Your task to perform on an android device: set default search engine in the chrome app Image 0: 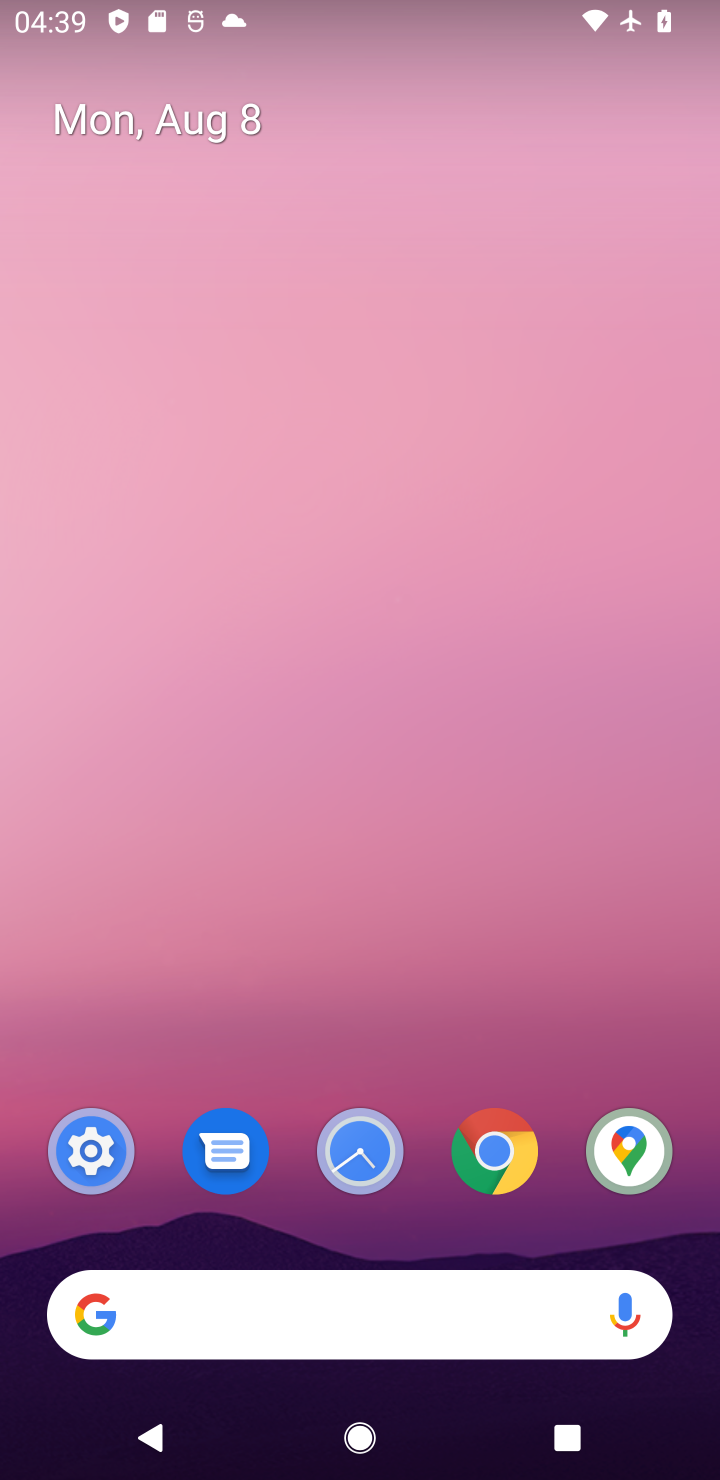
Step 0: click (495, 1129)
Your task to perform on an android device: set default search engine in the chrome app Image 1: 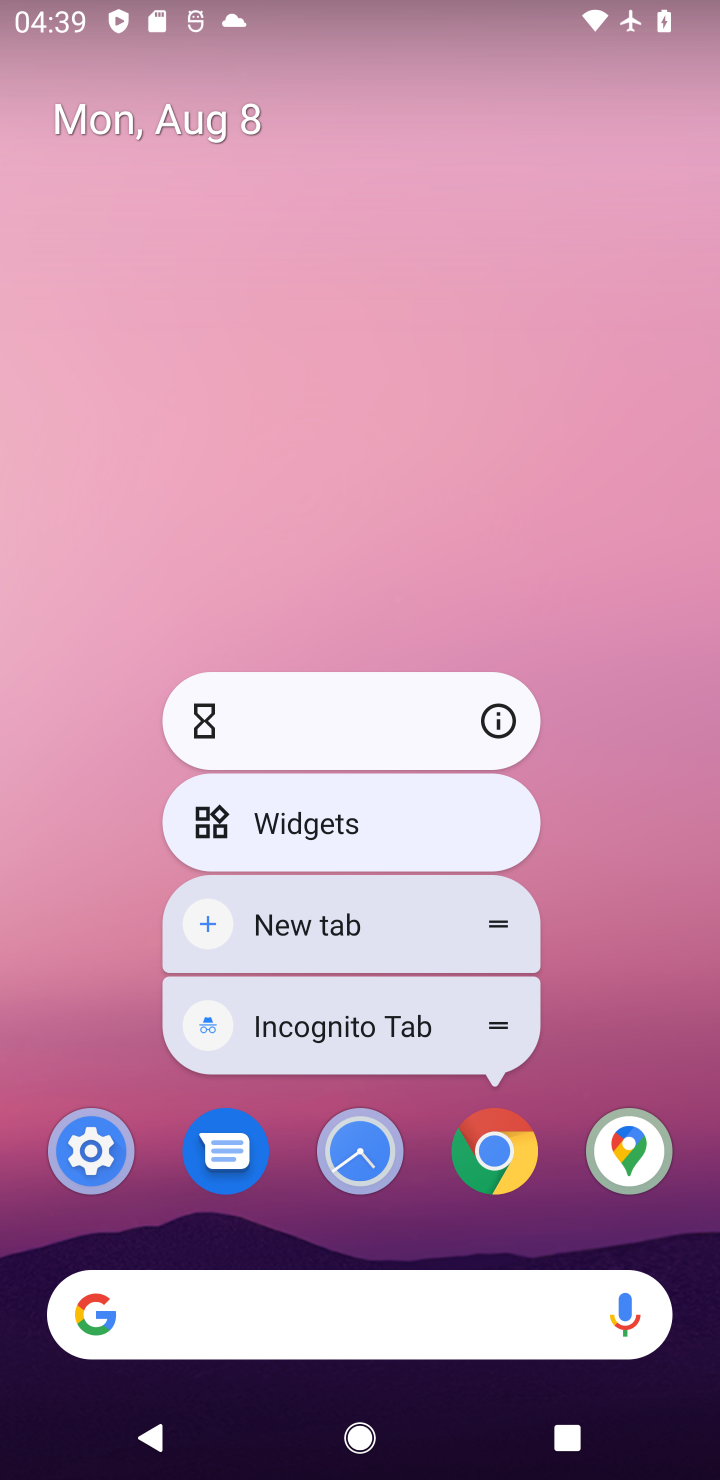
Step 1: click (495, 1129)
Your task to perform on an android device: set default search engine in the chrome app Image 2: 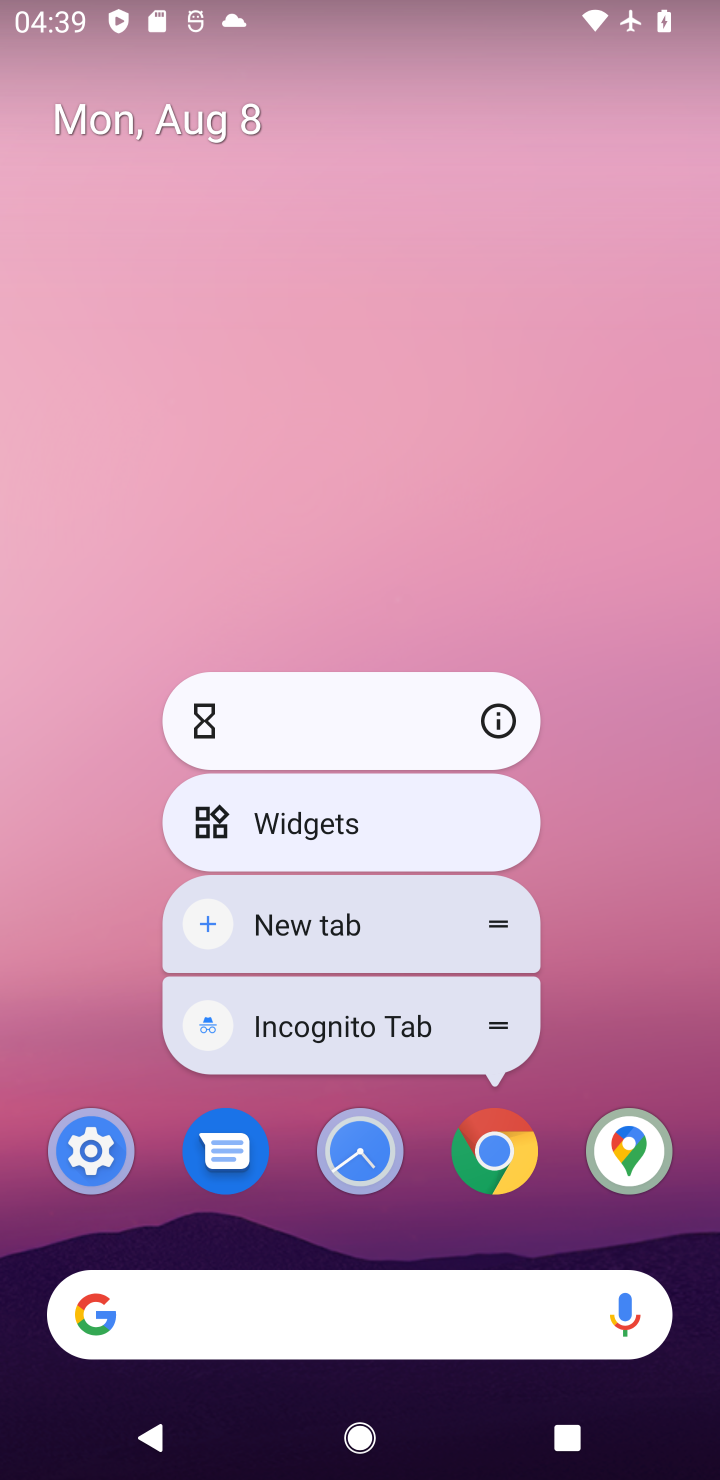
Step 2: click (495, 1129)
Your task to perform on an android device: set default search engine in the chrome app Image 3: 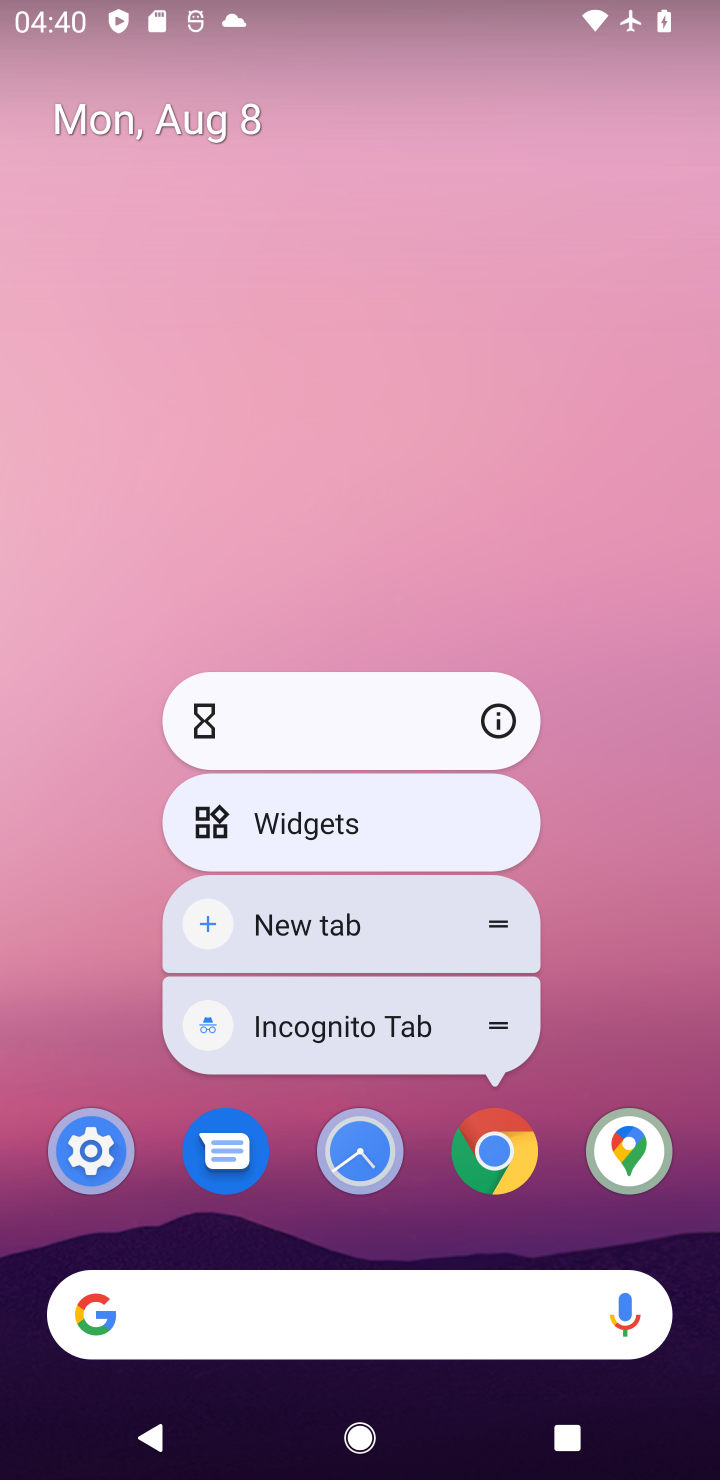
Step 3: click (495, 1129)
Your task to perform on an android device: set default search engine in the chrome app Image 4: 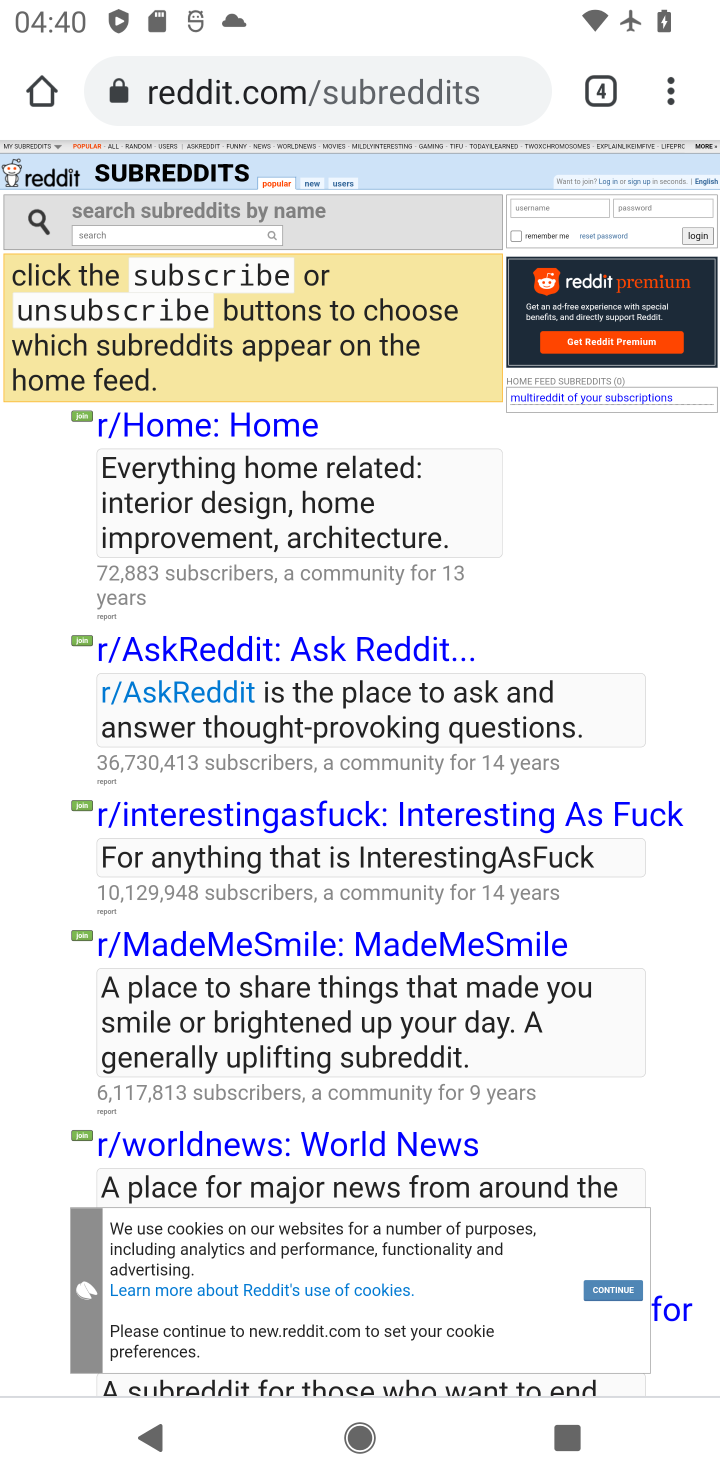
Step 4: click (667, 101)
Your task to perform on an android device: set default search engine in the chrome app Image 5: 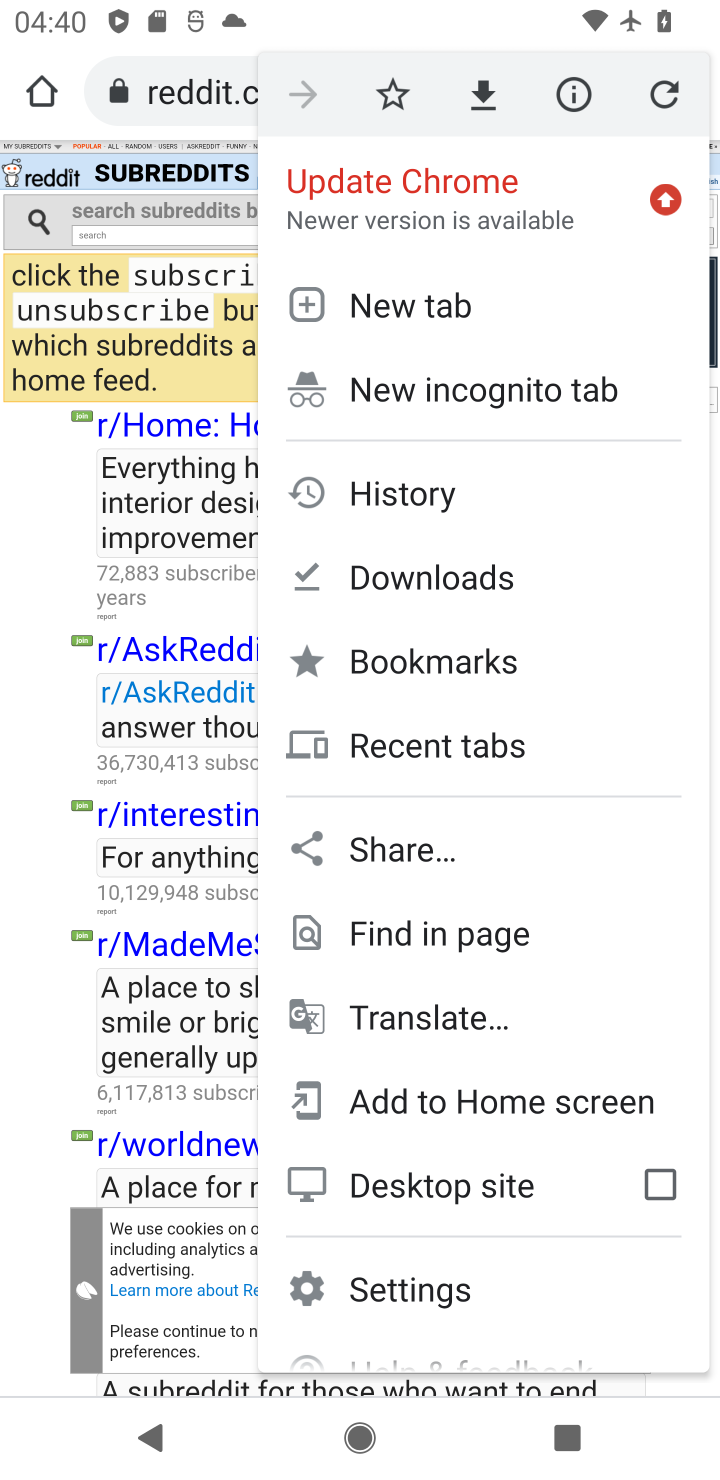
Step 5: click (411, 1281)
Your task to perform on an android device: set default search engine in the chrome app Image 6: 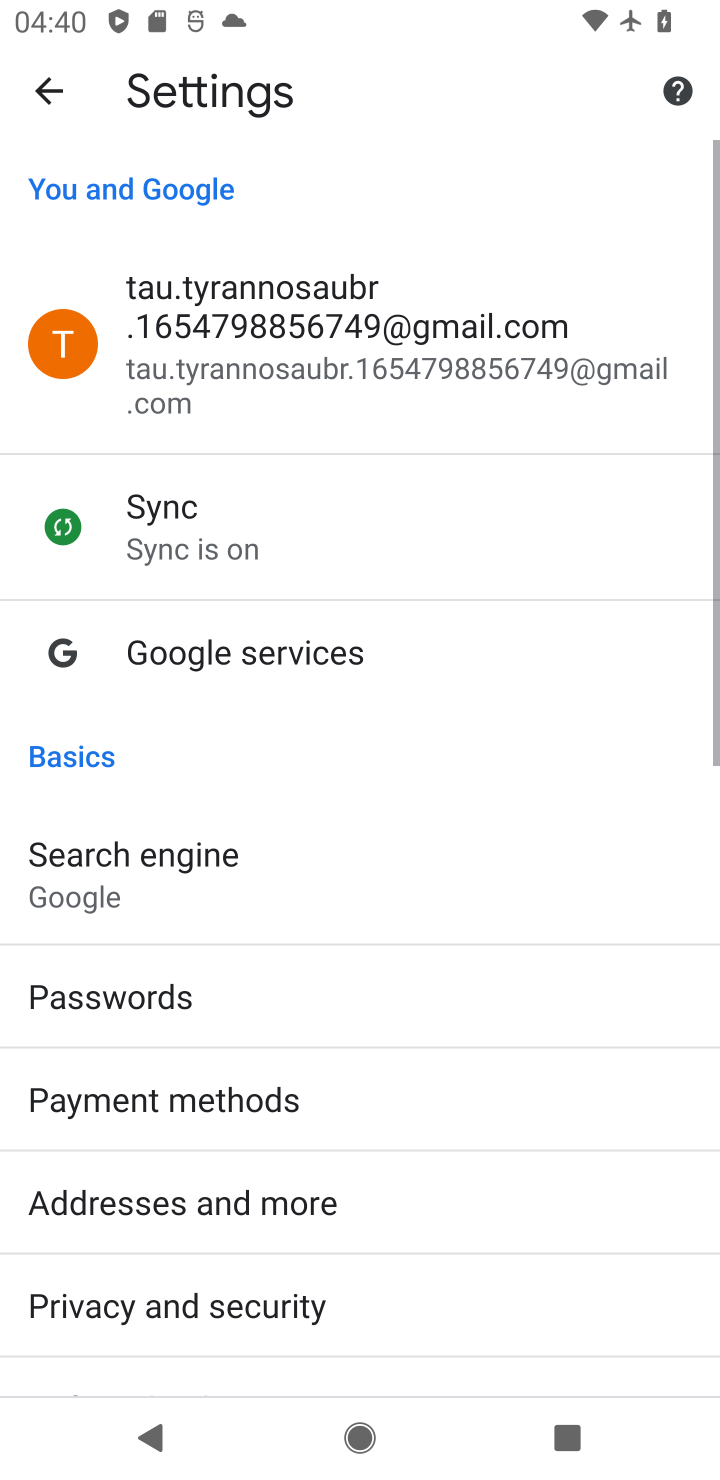
Step 6: click (341, 853)
Your task to perform on an android device: set default search engine in the chrome app Image 7: 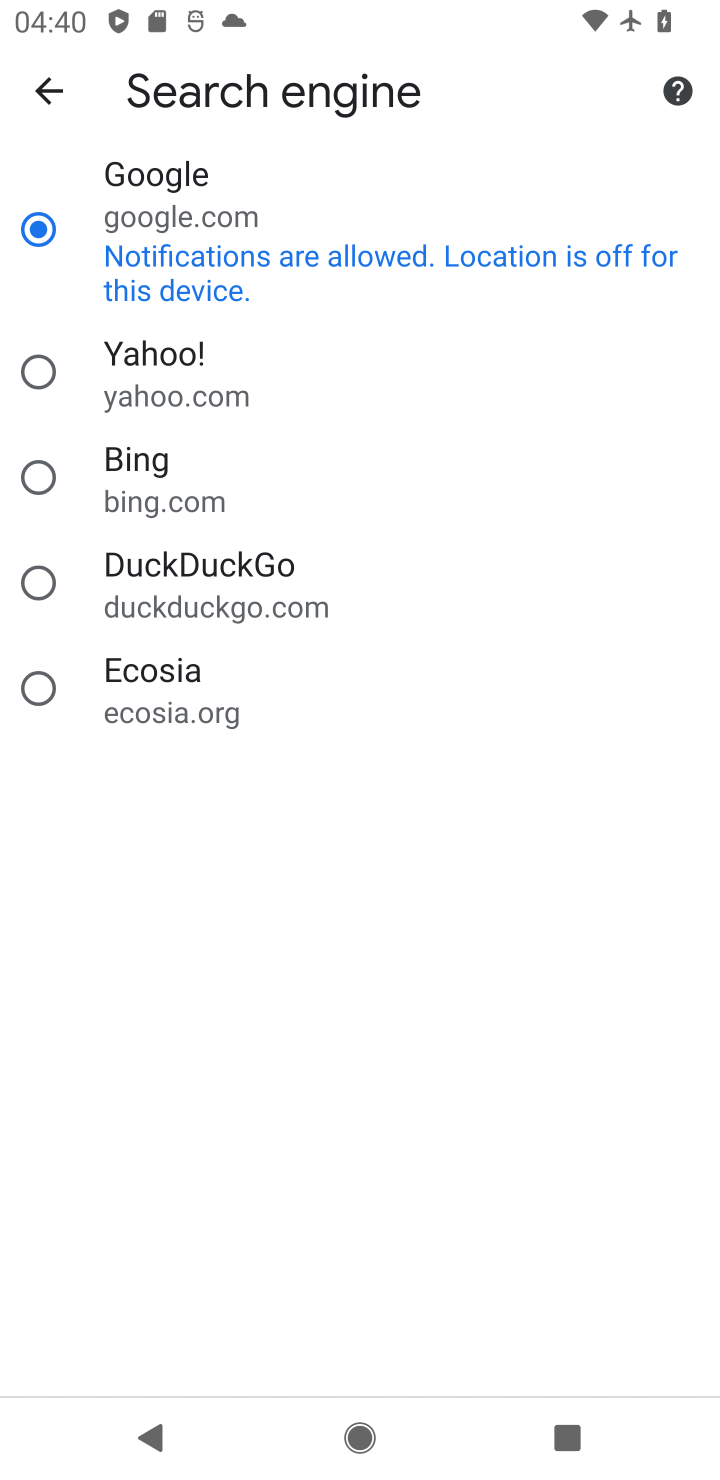
Step 7: task complete